Your task to perform on an android device: open device folders in google photos Image 0: 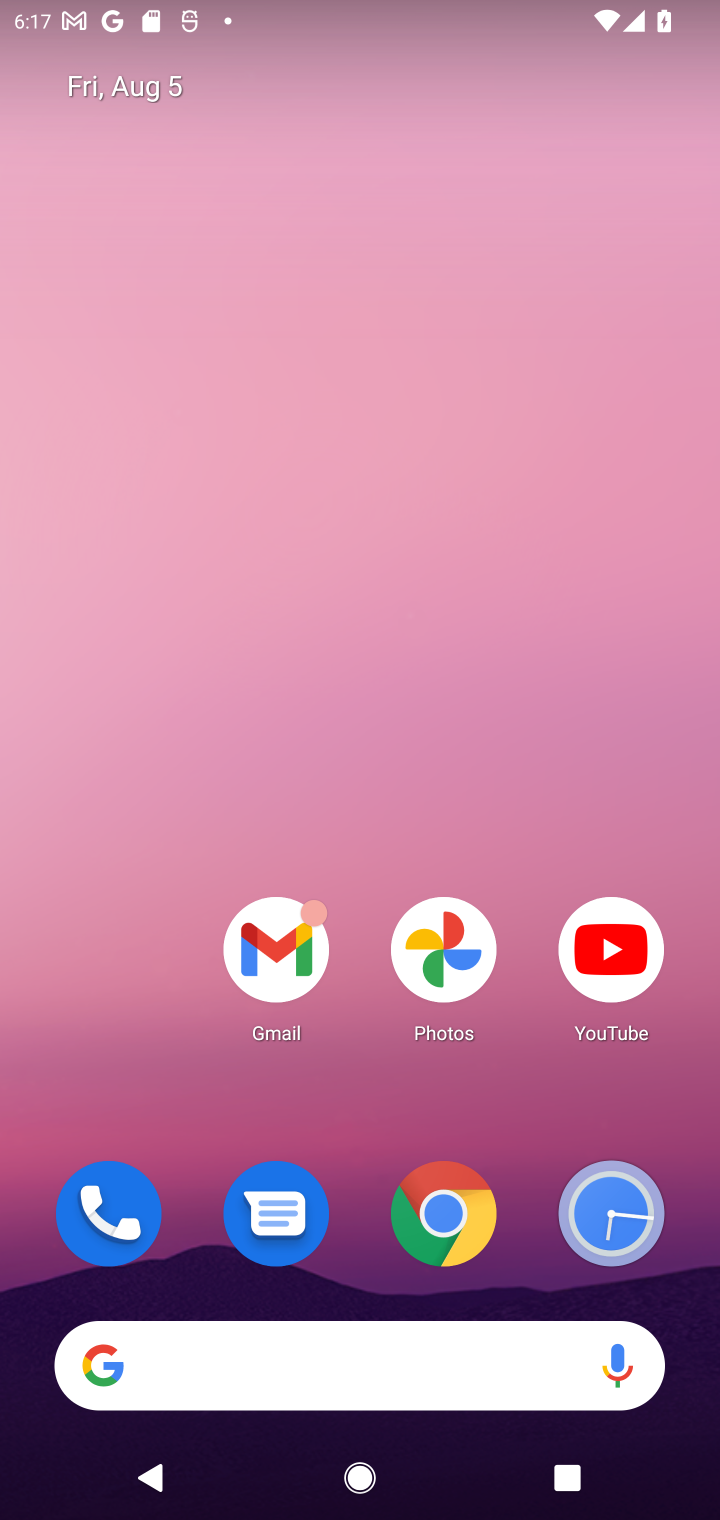
Step 0: click (460, 945)
Your task to perform on an android device: open device folders in google photos Image 1: 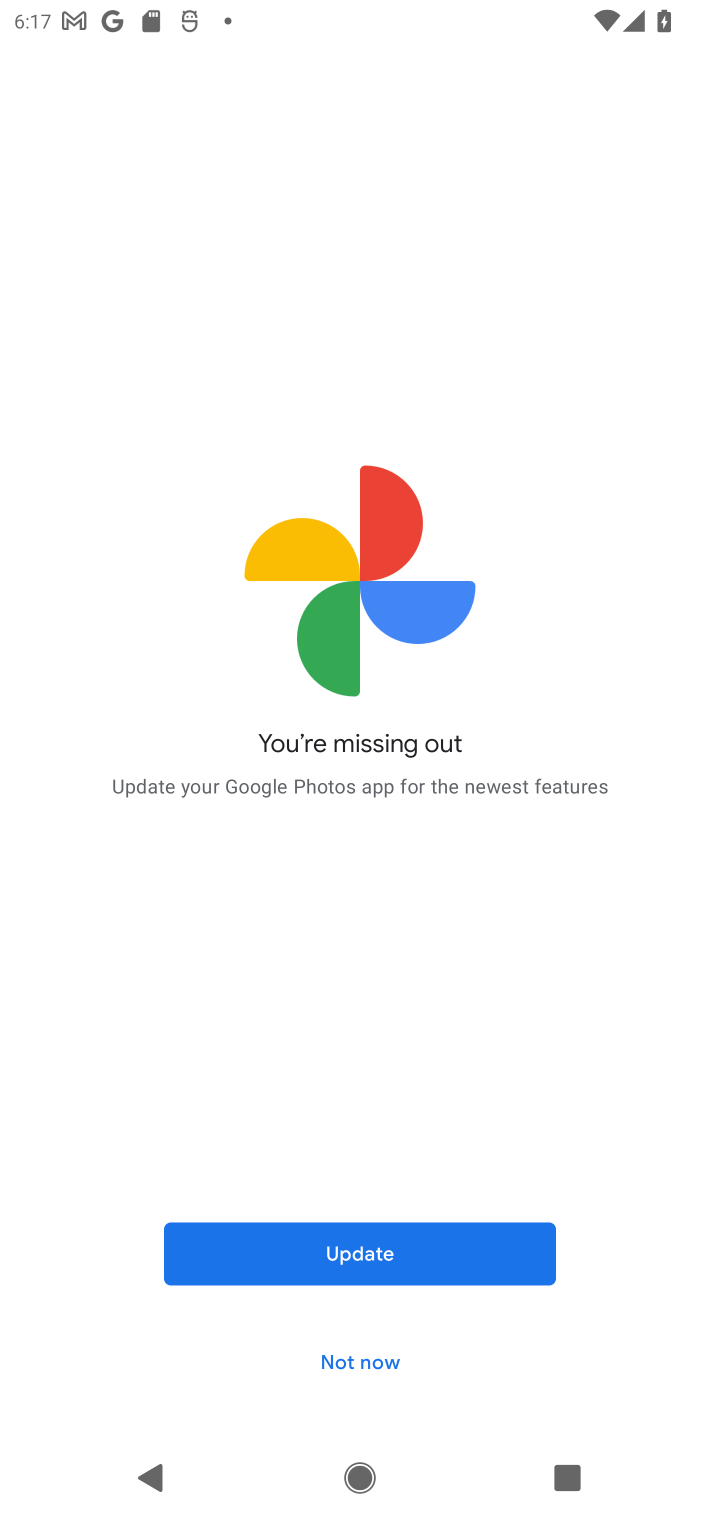
Step 1: click (324, 1336)
Your task to perform on an android device: open device folders in google photos Image 2: 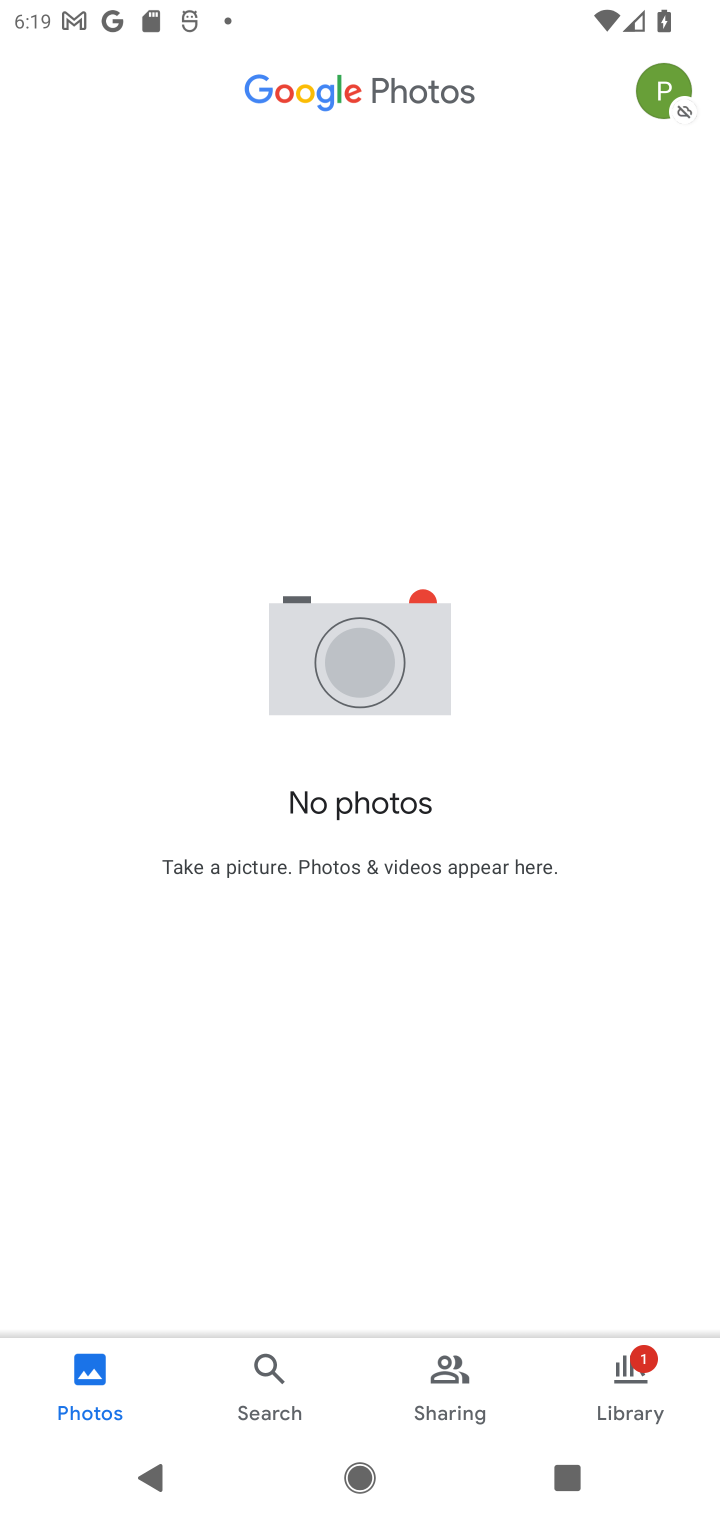
Step 2: click (667, 92)
Your task to perform on an android device: open device folders in google photos Image 3: 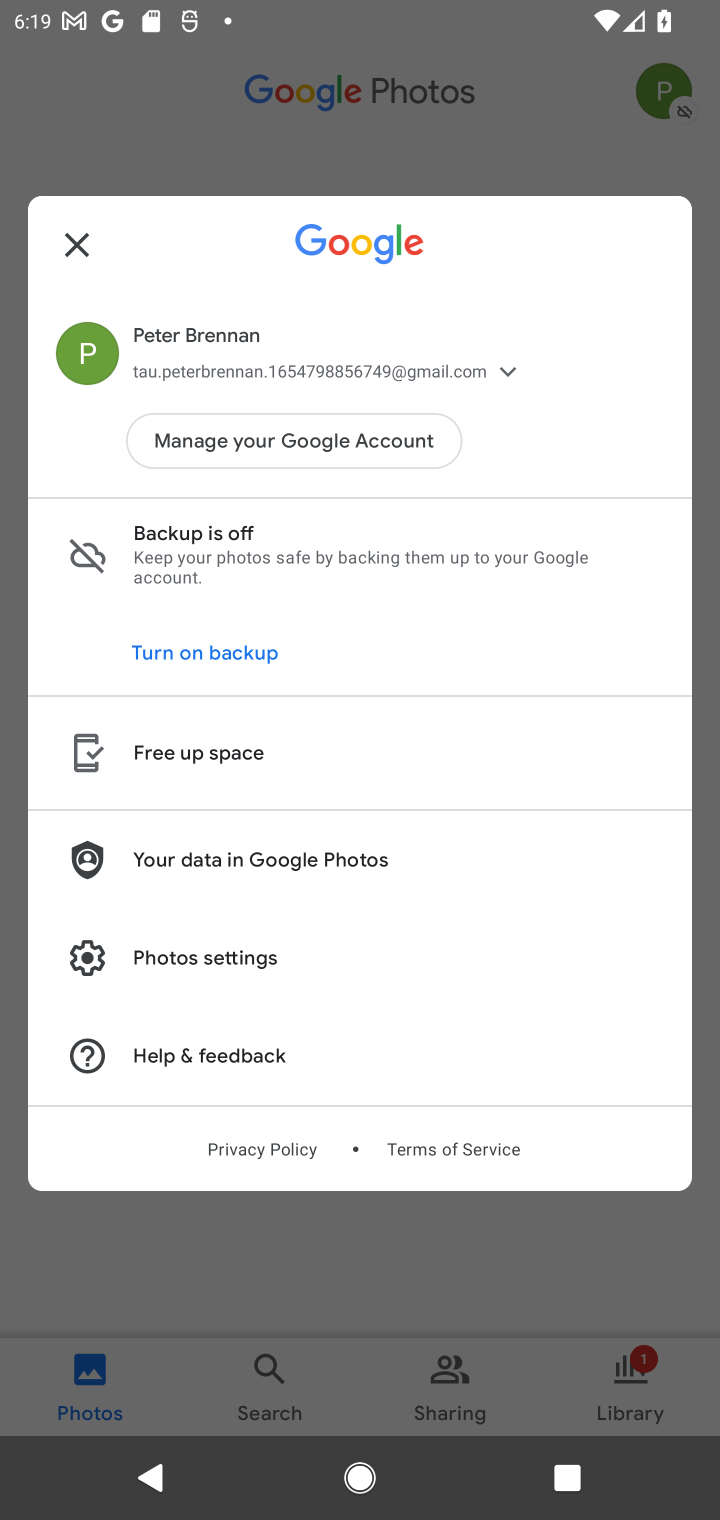
Step 3: task complete